Your task to perform on an android device: change the clock style Image 0: 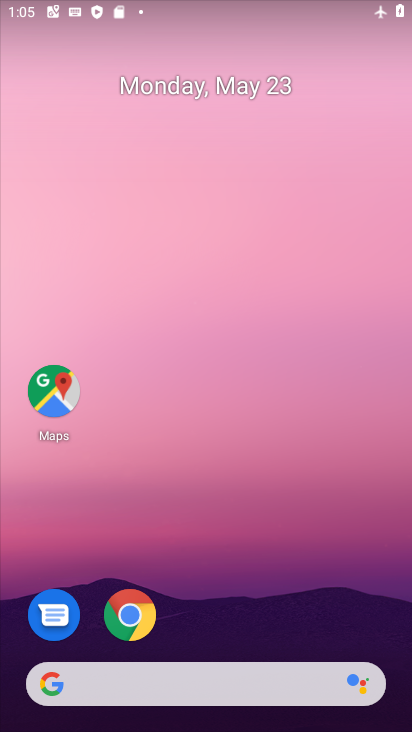
Step 0: drag from (213, 729) to (213, 144)
Your task to perform on an android device: change the clock style Image 1: 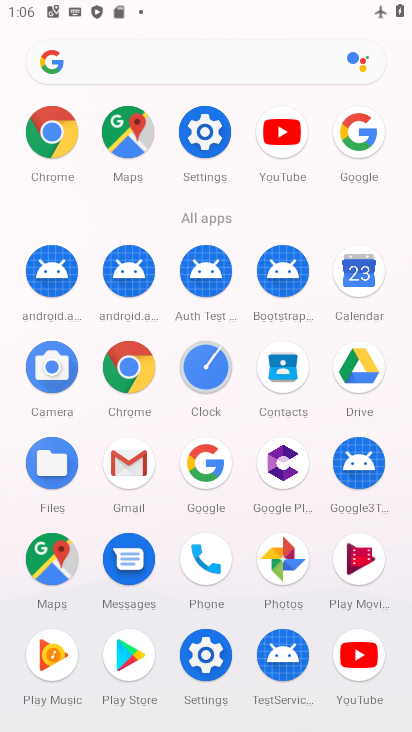
Step 1: click (202, 371)
Your task to perform on an android device: change the clock style Image 2: 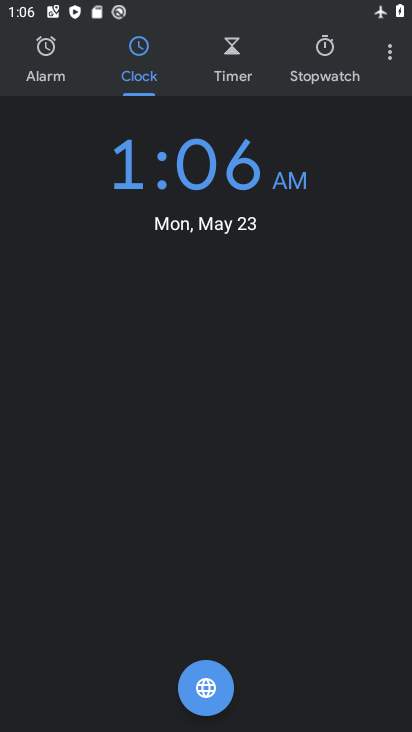
Step 2: click (392, 56)
Your task to perform on an android device: change the clock style Image 3: 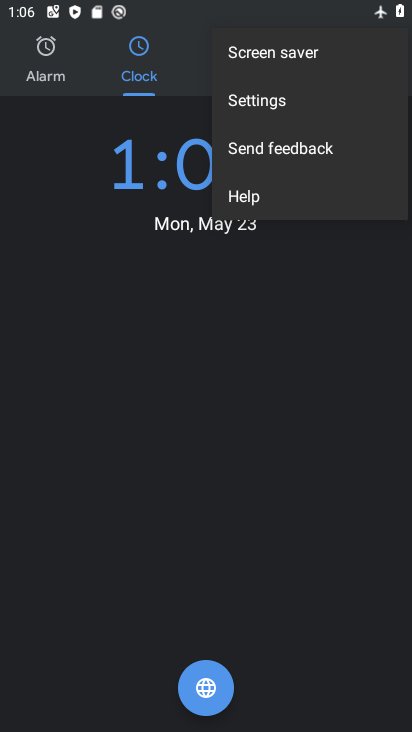
Step 3: click (278, 98)
Your task to perform on an android device: change the clock style Image 4: 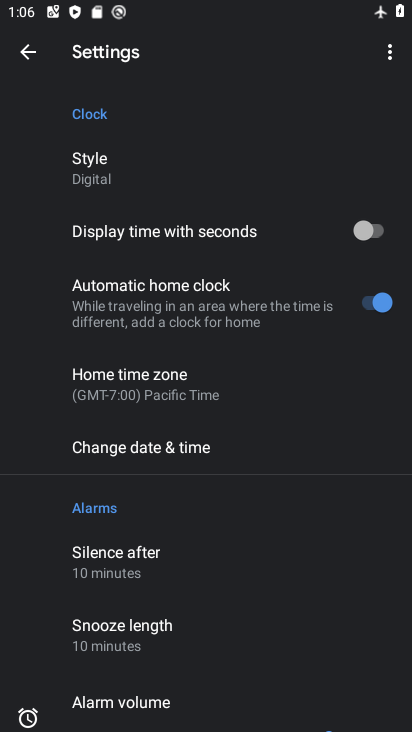
Step 4: click (98, 167)
Your task to perform on an android device: change the clock style Image 5: 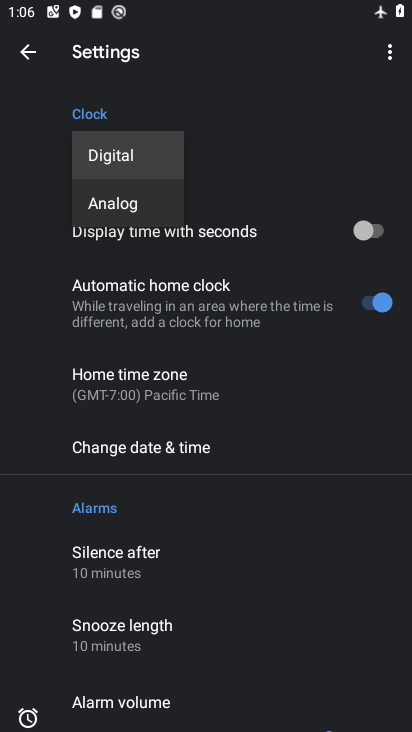
Step 5: click (119, 201)
Your task to perform on an android device: change the clock style Image 6: 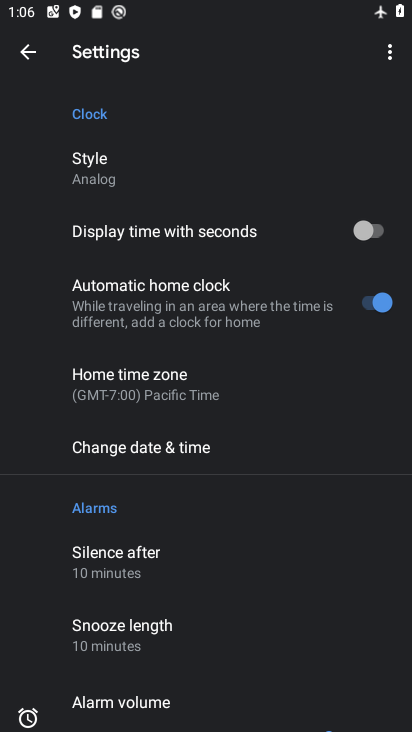
Step 6: task complete